Your task to perform on an android device: Go to Yahoo.com Image 0: 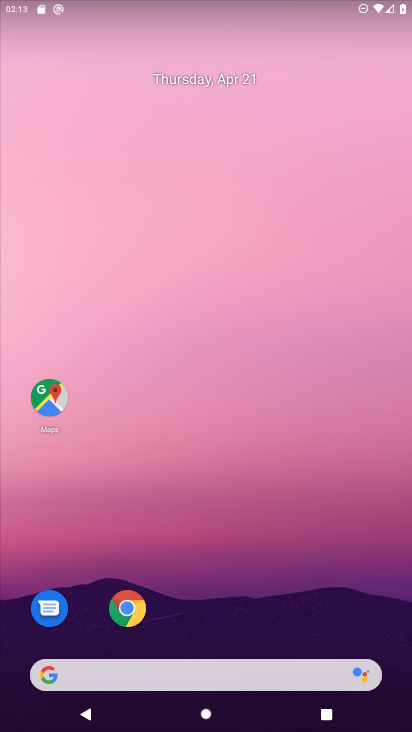
Step 0: drag from (263, 590) to (258, 253)
Your task to perform on an android device: Go to Yahoo.com Image 1: 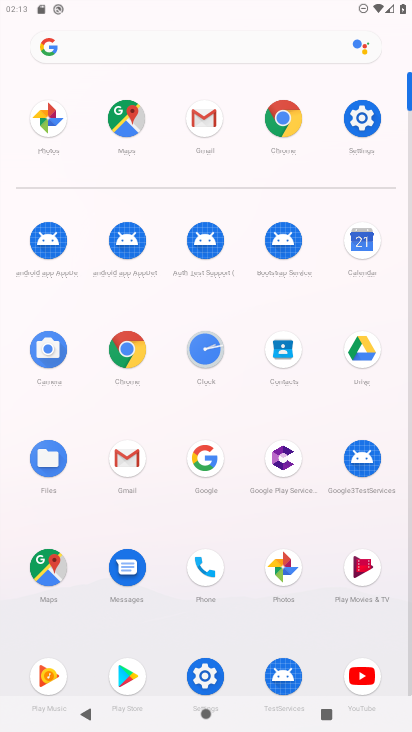
Step 1: click (127, 348)
Your task to perform on an android device: Go to Yahoo.com Image 2: 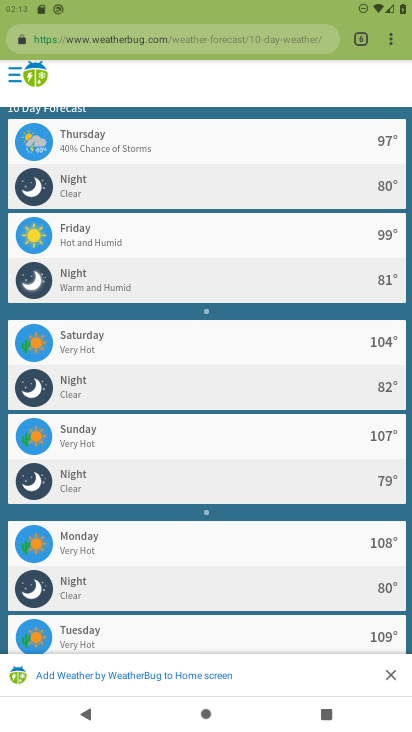
Step 2: click (395, 32)
Your task to perform on an android device: Go to Yahoo.com Image 3: 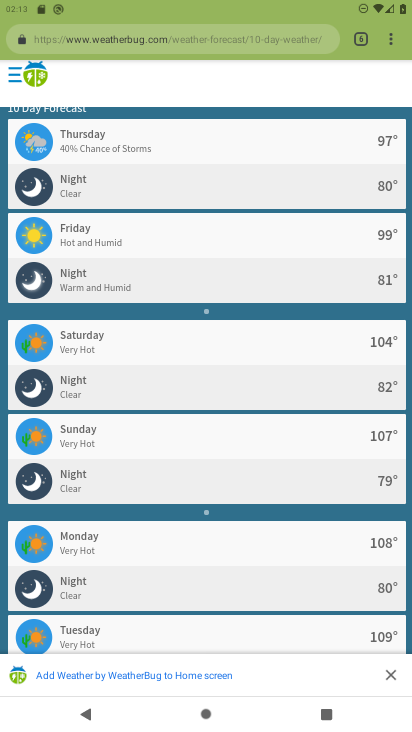
Step 3: click (379, 33)
Your task to perform on an android device: Go to Yahoo.com Image 4: 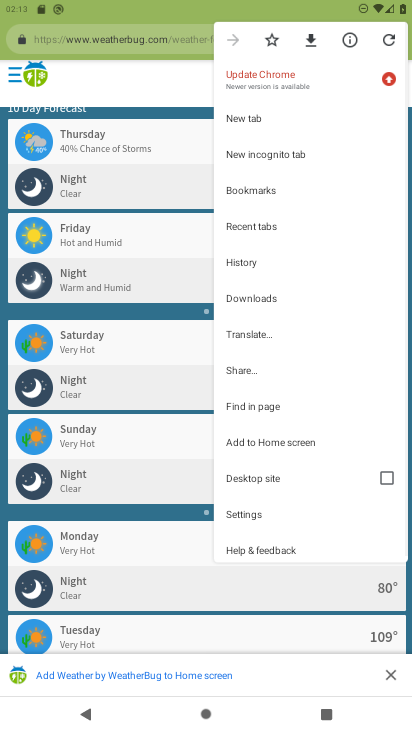
Step 4: click (291, 129)
Your task to perform on an android device: Go to Yahoo.com Image 5: 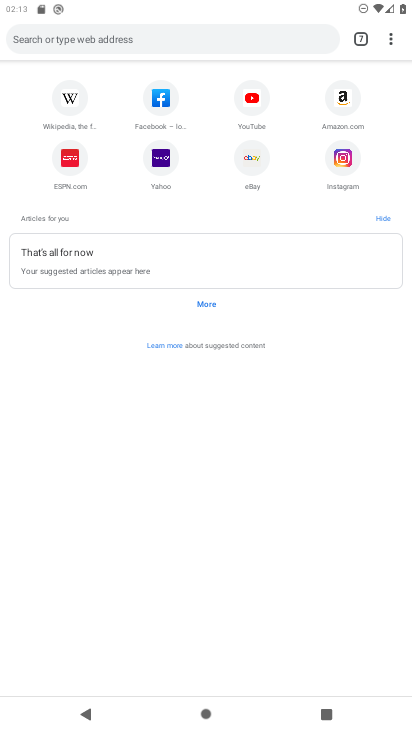
Step 5: click (165, 167)
Your task to perform on an android device: Go to Yahoo.com Image 6: 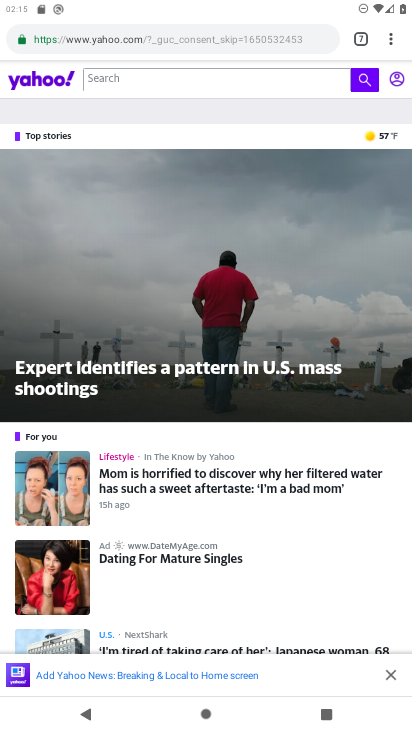
Step 6: task complete